Your task to perform on an android device: What's on my calendar today? Image 0: 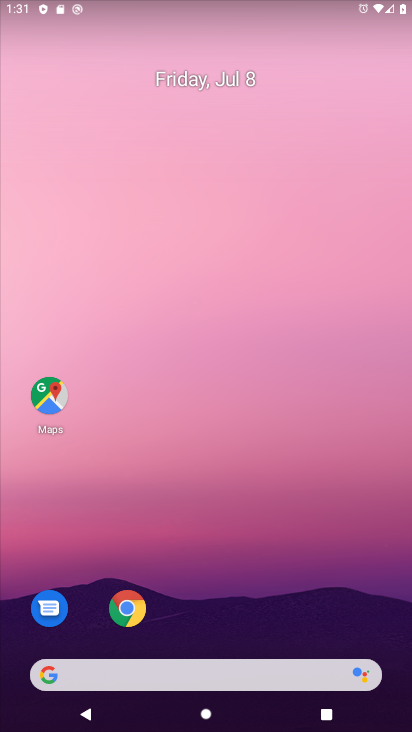
Step 0: click (218, 78)
Your task to perform on an android device: What's on my calendar today? Image 1: 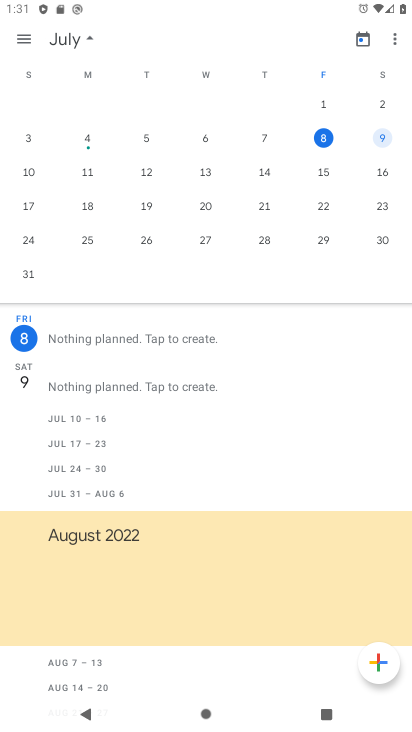
Step 1: task complete